Your task to perform on an android device: search for 2021 honda civic Image 0: 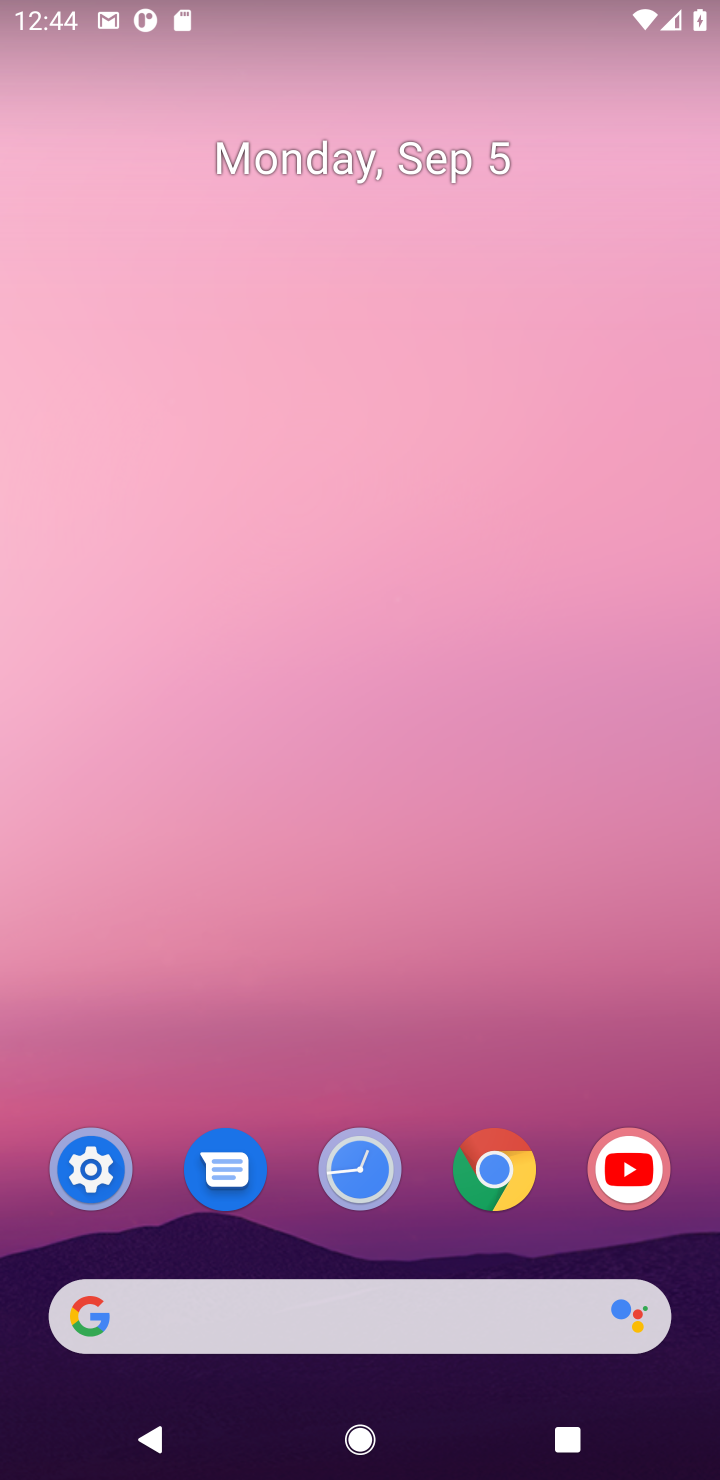
Step 0: click (640, 1137)
Your task to perform on an android device: search for 2021 honda civic Image 1: 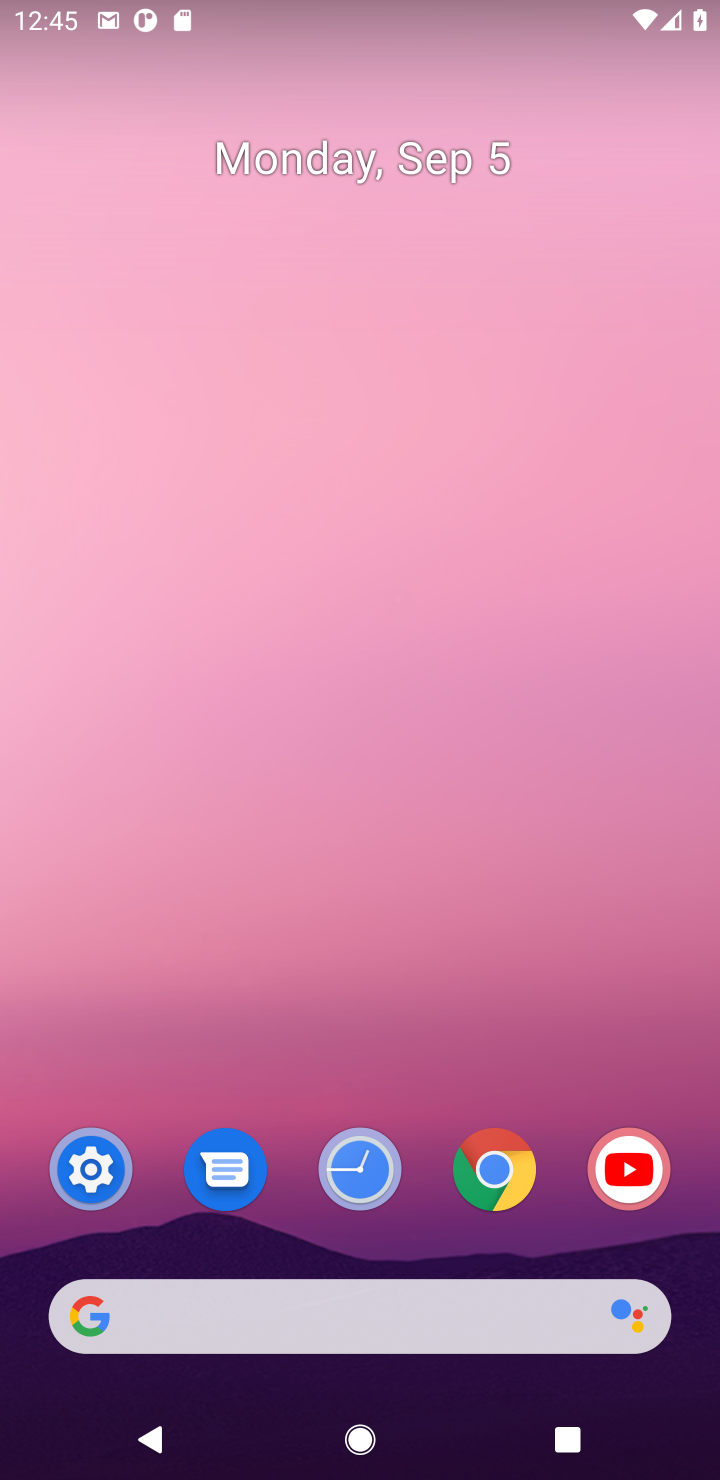
Step 1: click (640, 1137)
Your task to perform on an android device: search for 2021 honda civic Image 2: 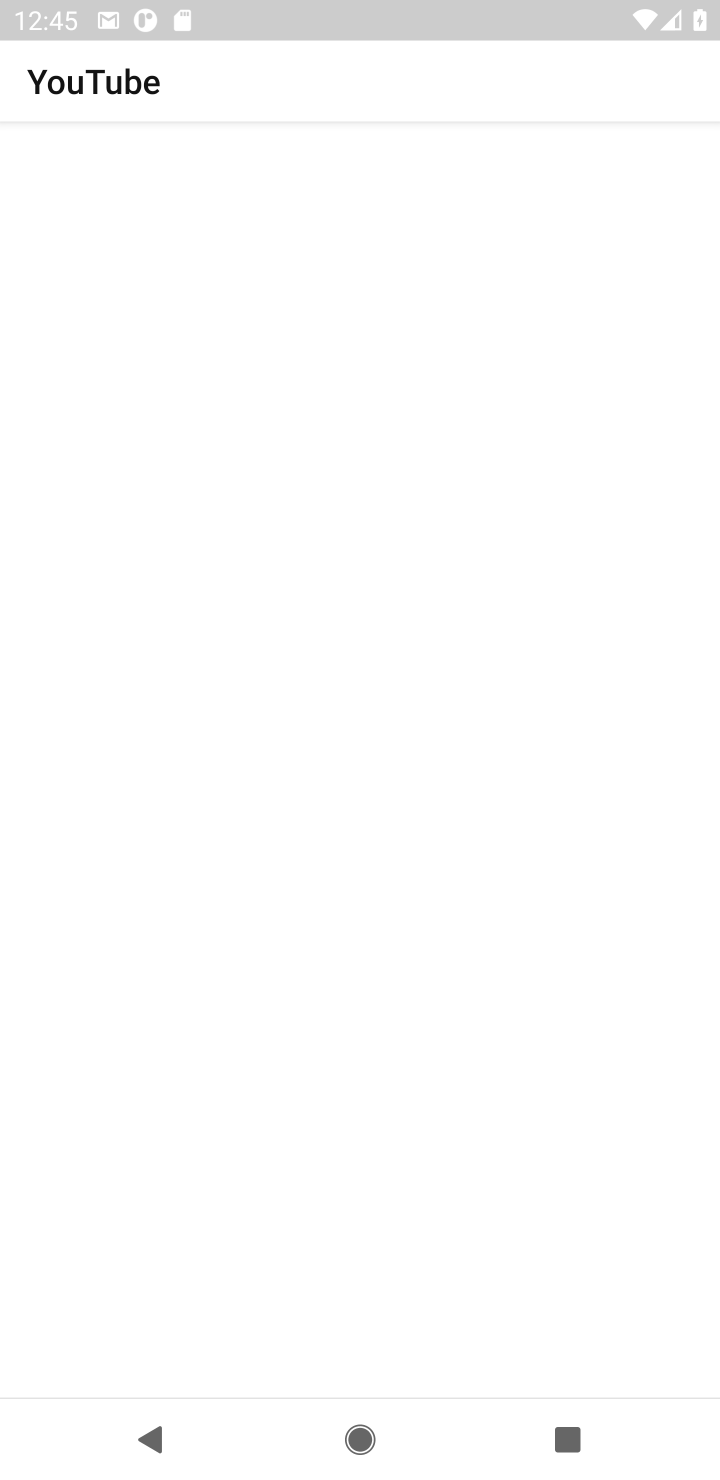
Step 2: task complete